Your task to perform on an android device: Open the calendar and show me this week's events? Image 0: 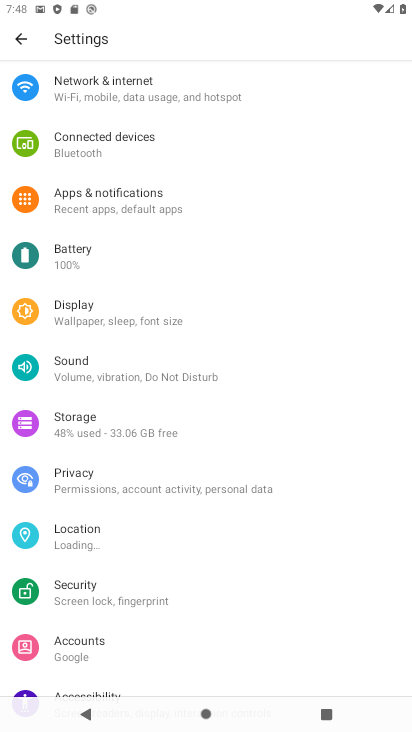
Step 0: press home button
Your task to perform on an android device: Open the calendar and show me this week's events? Image 1: 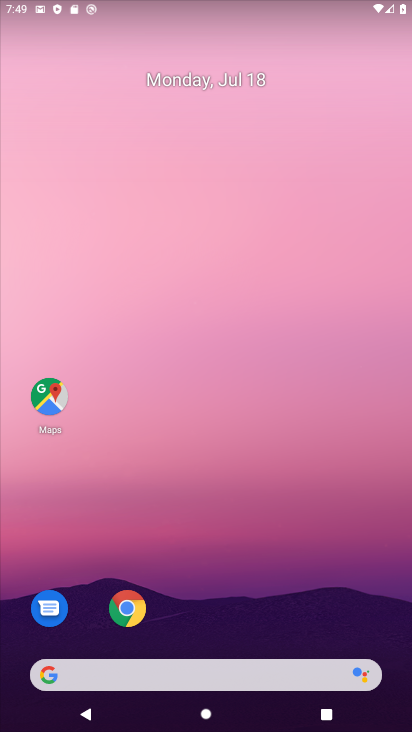
Step 1: drag from (250, 721) to (273, 209)
Your task to perform on an android device: Open the calendar and show me this week's events? Image 2: 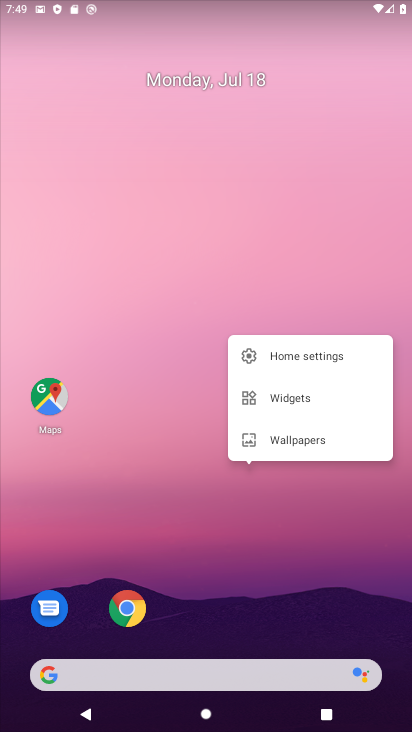
Step 2: click (301, 517)
Your task to perform on an android device: Open the calendar and show me this week's events? Image 3: 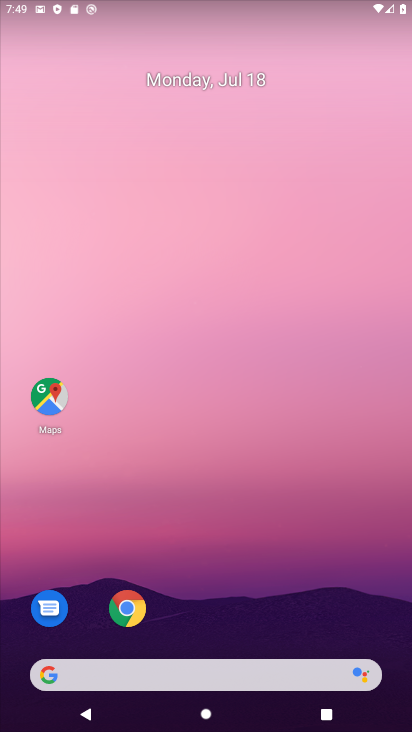
Step 3: drag from (241, 721) to (213, 115)
Your task to perform on an android device: Open the calendar and show me this week's events? Image 4: 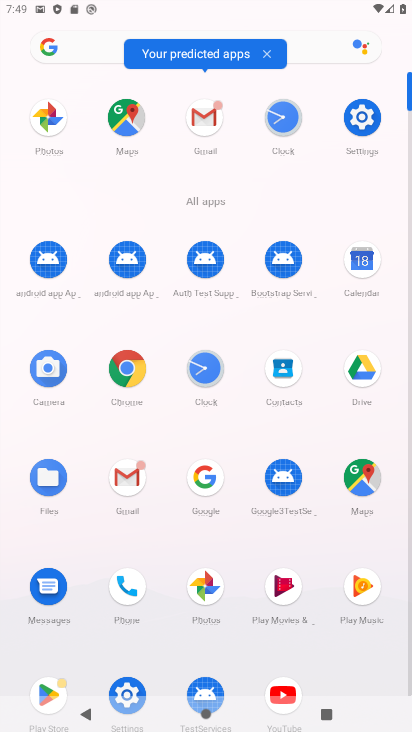
Step 4: click (362, 254)
Your task to perform on an android device: Open the calendar and show me this week's events? Image 5: 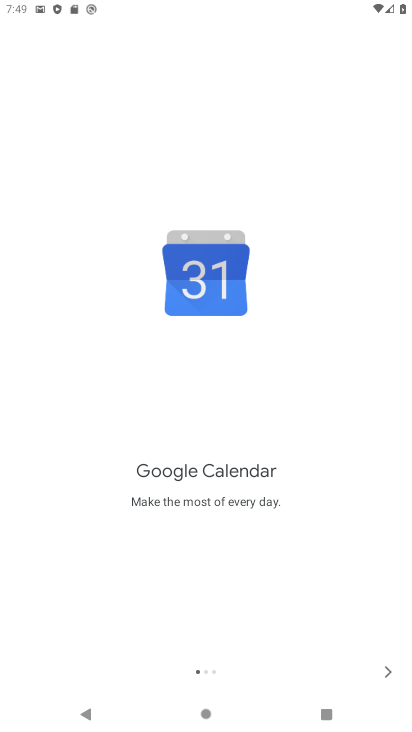
Step 5: click (384, 660)
Your task to perform on an android device: Open the calendar and show me this week's events? Image 6: 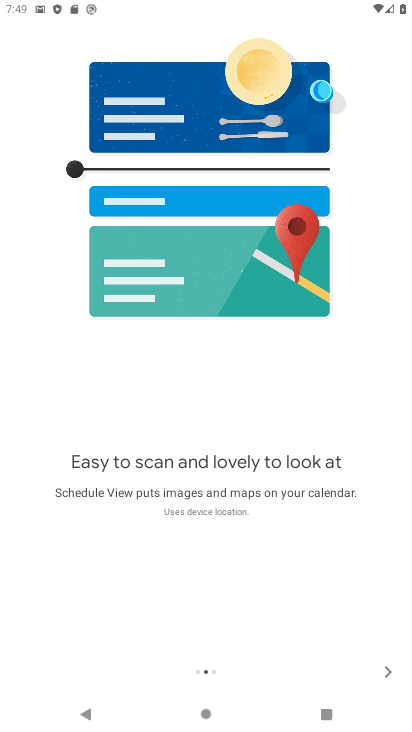
Step 6: click (390, 667)
Your task to perform on an android device: Open the calendar and show me this week's events? Image 7: 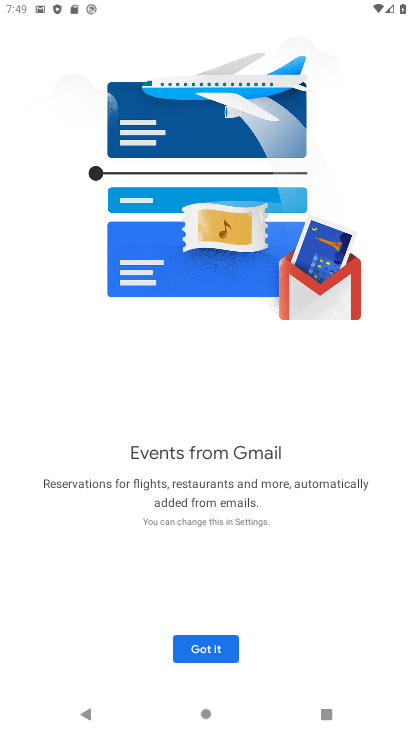
Step 7: click (199, 651)
Your task to perform on an android device: Open the calendar and show me this week's events? Image 8: 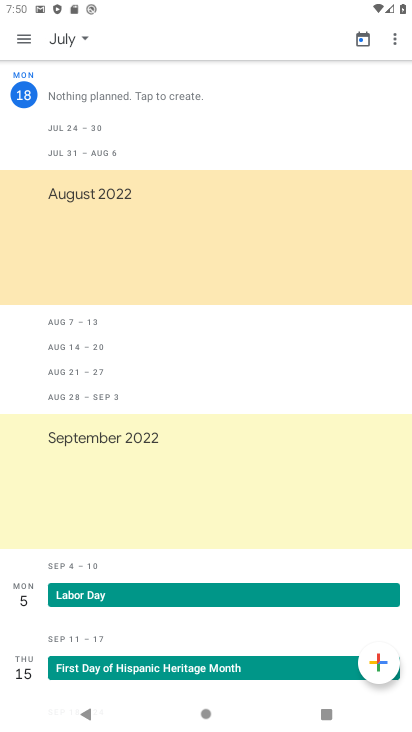
Step 8: click (29, 33)
Your task to perform on an android device: Open the calendar and show me this week's events? Image 9: 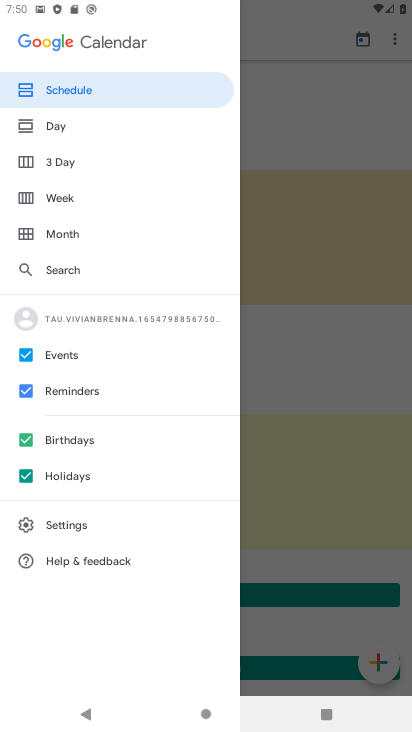
Step 9: click (22, 477)
Your task to perform on an android device: Open the calendar and show me this week's events? Image 10: 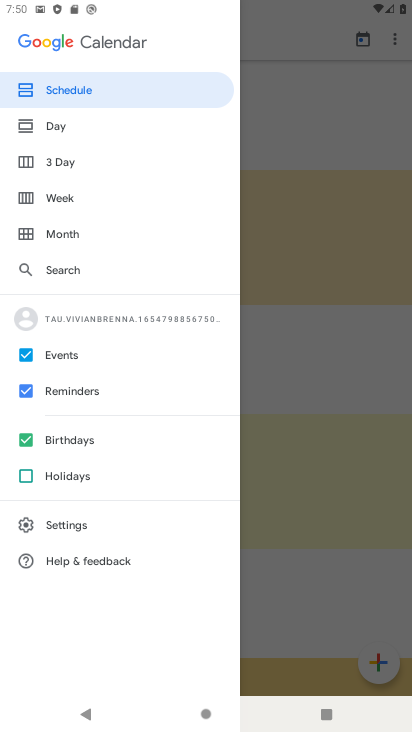
Step 10: click (27, 440)
Your task to perform on an android device: Open the calendar and show me this week's events? Image 11: 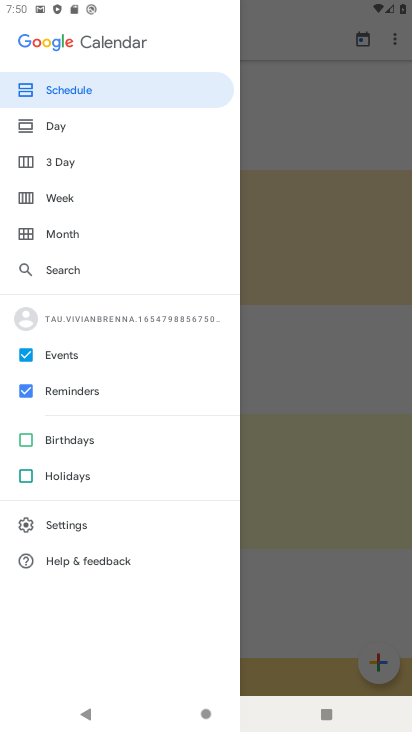
Step 11: click (23, 389)
Your task to perform on an android device: Open the calendar and show me this week's events? Image 12: 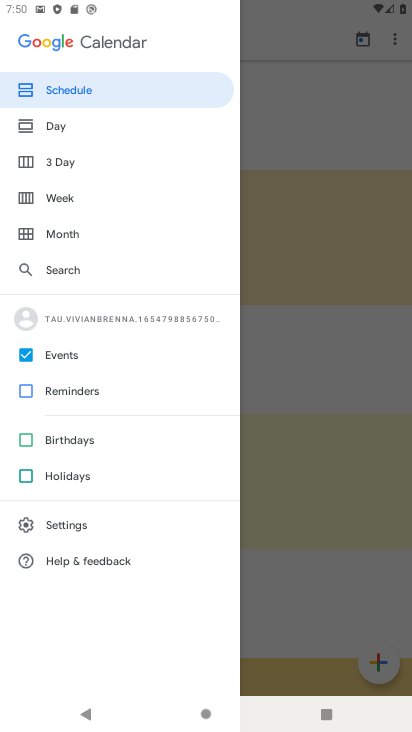
Step 12: click (63, 197)
Your task to perform on an android device: Open the calendar and show me this week's events? Image 13: 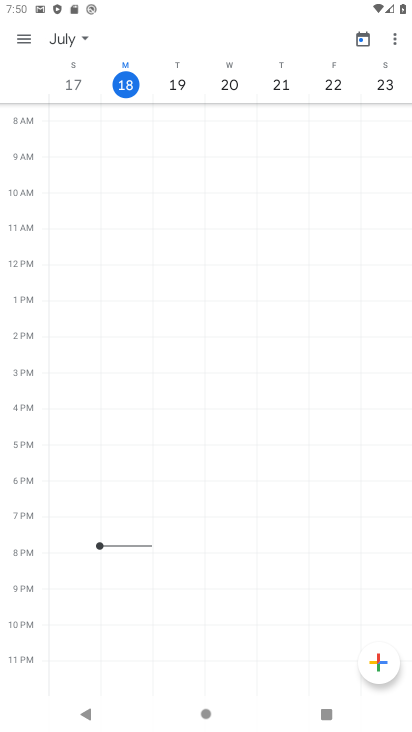
Step 13: task complete